Your task to perform on an android device: What's the weather today? Image 0: 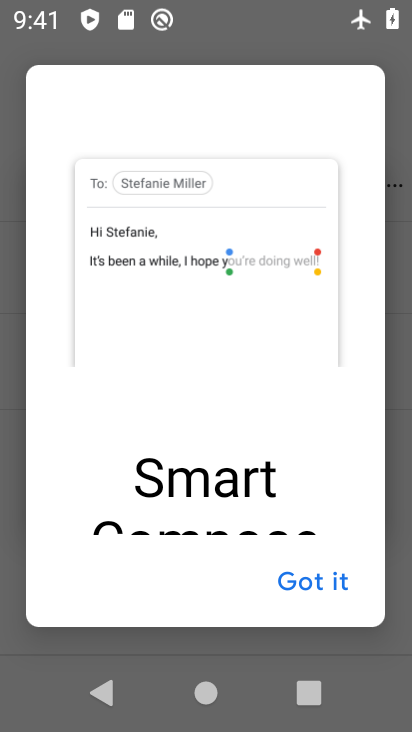
Step 0: press home button
Your task to perform on an android device: What's the weather today? Image 1: 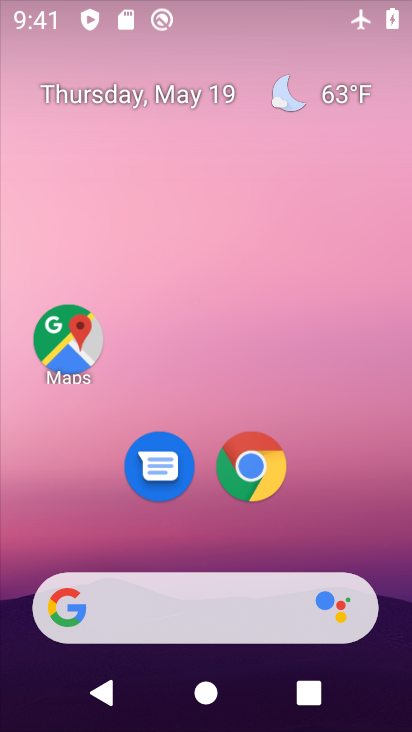
Step 1: drag from (391, 634) to (267, 64)
Your task to perform on an android device: What's the weather today? Image 2: 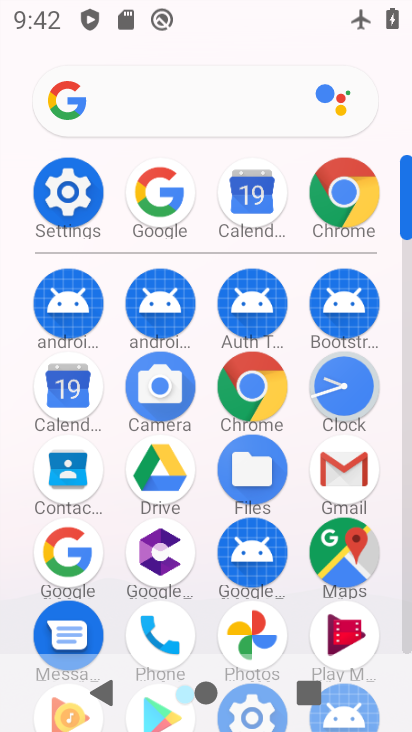
Step 2: click (77, 553)
Your task to perform on an android device: What's the weather today? Image 3: 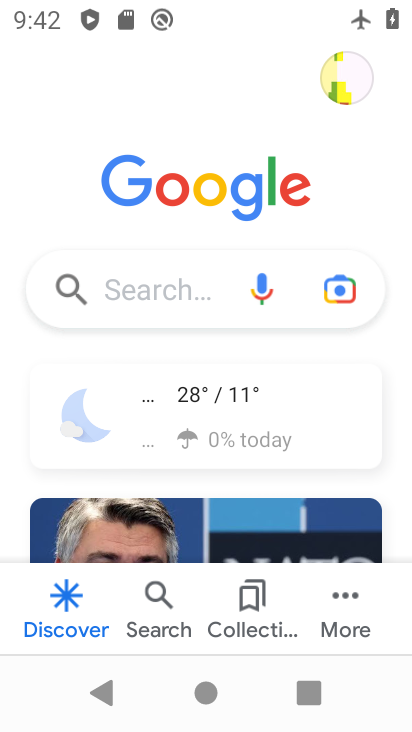
Step 3: click (143, 282)
Your task to perform on an android device: What's the weather today? Image 4: 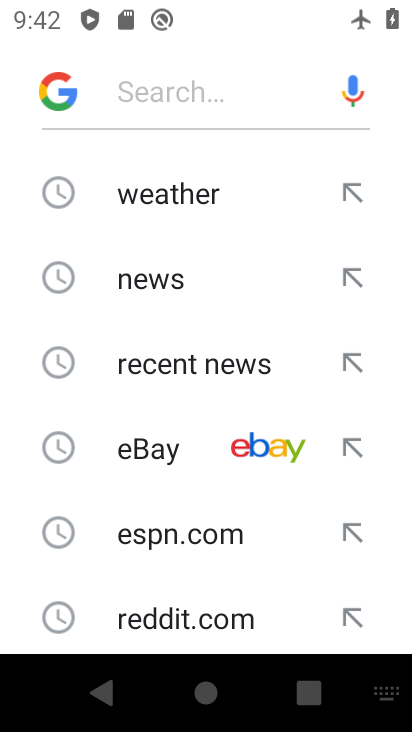
Step 4: click (204, 218)
Your task to perform on an android device: What's the weather today? Image 5: 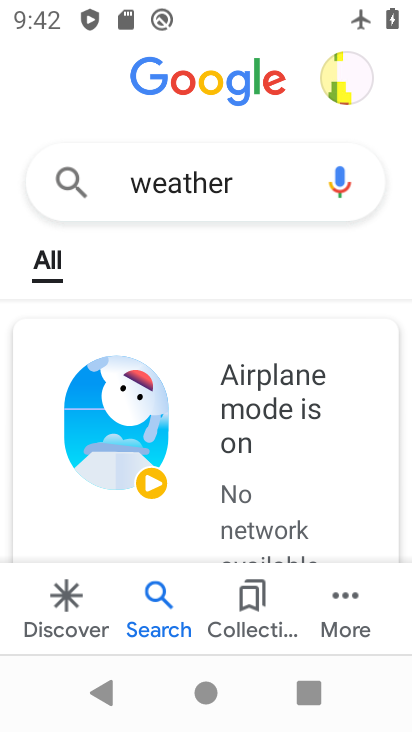
Step 5: task complete